Your task to perform on an android device: toggle translation in the chrome app Image 0: 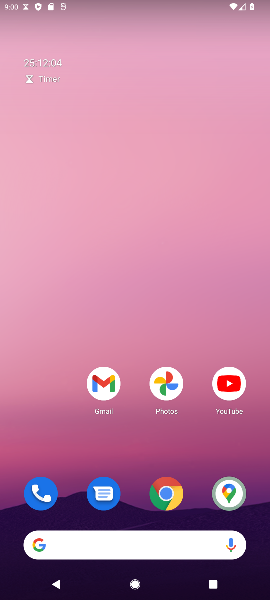
Step 0: drag from (79, 466) to (91, 156)
Your task to perform on an android device: toggle translation in the chrome app Image 1: 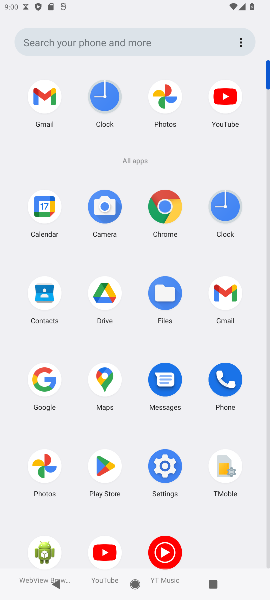
Step 1: click (159, 206)
Your task to perform on an android device: toggle translation in the chrome app Image 2: 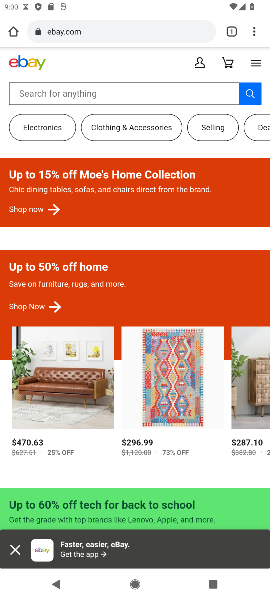
Step 2: drag from (251, 28) to (178, 405)
Your task to perform on an android device: toggle translation in the chrome app Image 3: 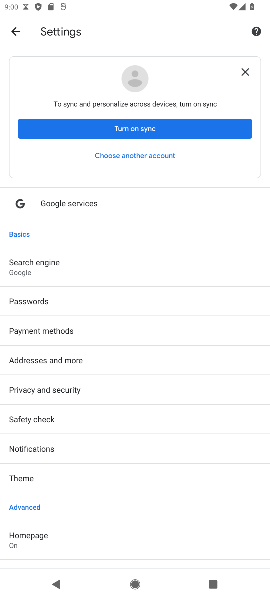
Step 3: drag from (95, 473) to (101, 197)
Your task to perform on an android device: toggle translation in the chrome app Image 4: 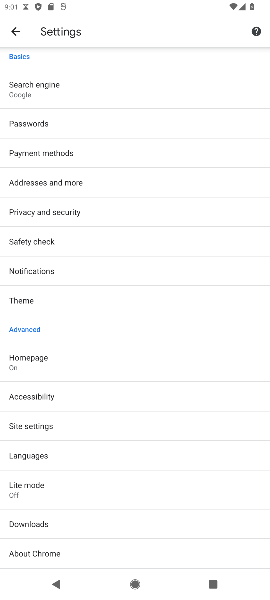
Step 4: click (27, 456)
Your task to perform on an android device: toggle translation in the chrome app Image 5: 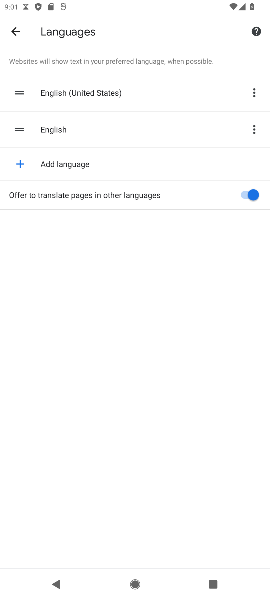
Step 5: click (247, 192)
Your task to perform on an android device: toggle translation in the chrome app Image 6: 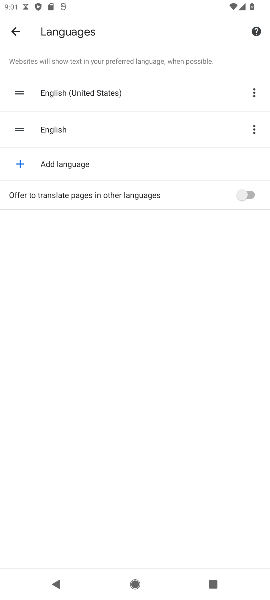
Step 6: task complete